Your task to perform on an android device: Search for "lg ultragear" on target.com, select the first entry, and add it to the cart. Image 0: 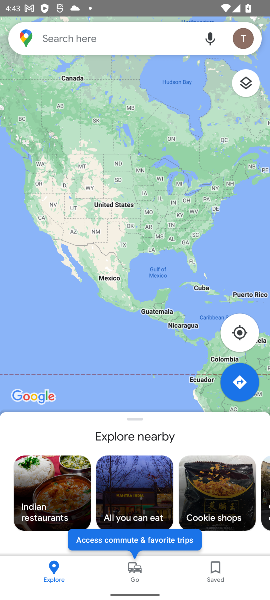
Step 0: press home button
Your task to perform on an android device: Search for "lg ultragear" on target.com, select the first entry, and add it to the cart. Image 1: 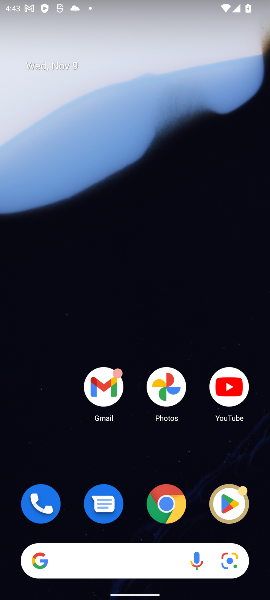
Step 1: click (121, 562)
Your task to perform on an android device: Search for "lg ultragear" on target.com, select the first entry, and add it to the cart. Image 2: 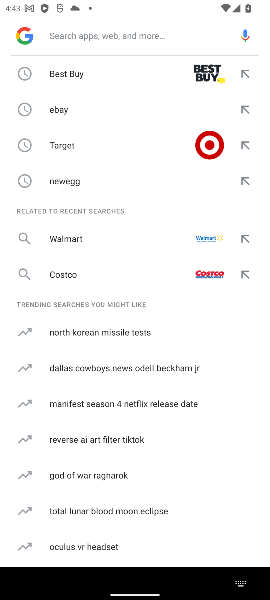
Step 2: type " target.com,"
Your task to perform on an android device: Search for "lg ultragear" on target.com, select the first entry, and add it to the cart. Image 3: 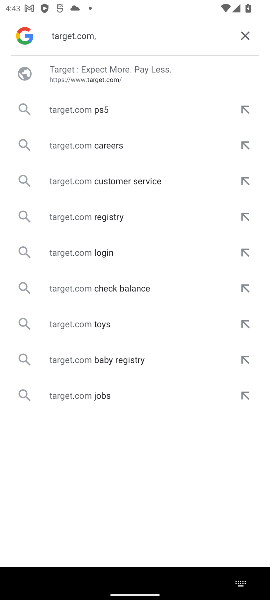
Step 3: click (102, 74)
Your task to perform on an android device: Search for "lg ultragear" on target.com, select the first entry, and add it to the cart. Image 4: 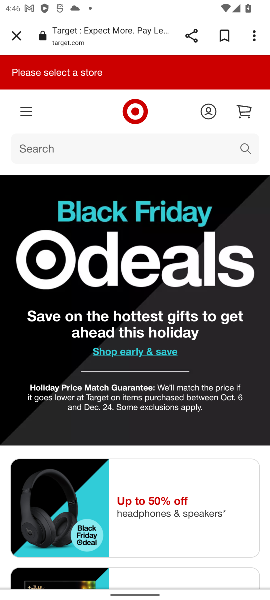
Step 4: click (163, 143)
Your task to perform on an android device: Search for "lg ultragear" on target.com, select the first entry, and add it to the cart. Image 5: 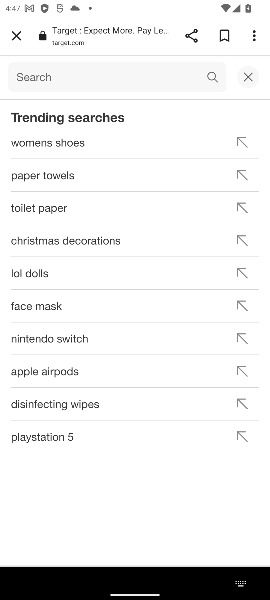
Step 5: type "lg ultragear"
Your task to perform on an android device: Search for "lg ultragear" on target.com, select the first entry, and add it to the cart. Image 6: 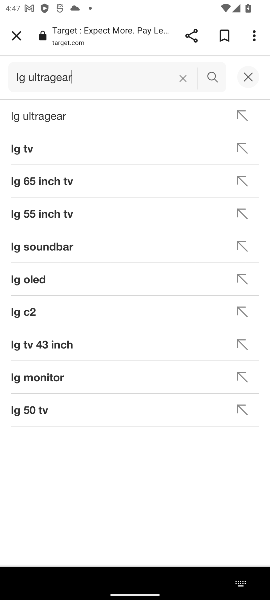
Step 6: click (48, 122)
Your task to perform on an android device: Search for "lg ultragear" on target.com, select the first entry, and add it to the cart. Image 7: 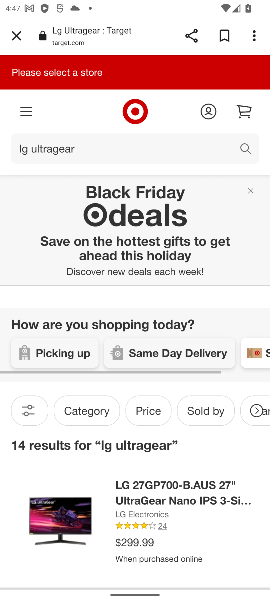
Step 7: click (146, 503)
Your task to perform on an android device: Search for "lg ultragear" on target.com, select the first entry, and add it to the cart. Image 8: 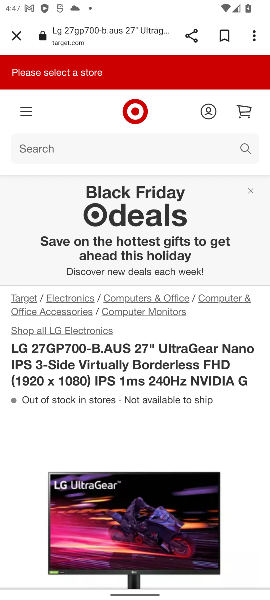
Step 8: drag from (194, 238) to (194, 188)
Your task to perform on an android device: Search for "lg ultragear" on target.com, select the first entry, and add it to the cart. Image 9: 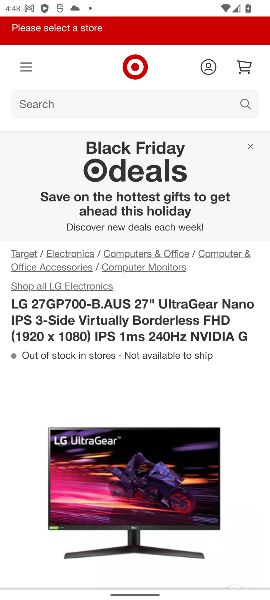
Step 9: drag from (125, 435) to (149, 269)
Your task to perform on an android device: Search for "lg ultragear" on target.com, select the first entry, and add it to the cart. Image 10: 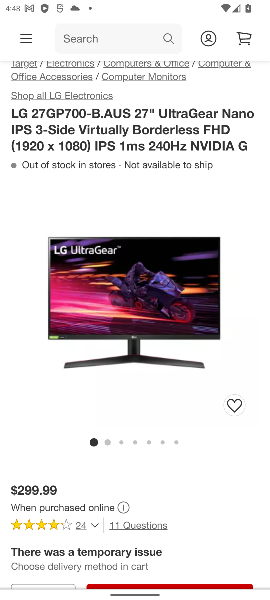
Step 10: drag from (127, 472) to (139, 240)
Your task to perform on an android device: Search for "lg ultragear" on target.com, select the first entry, and add it to the cart. Image 11: 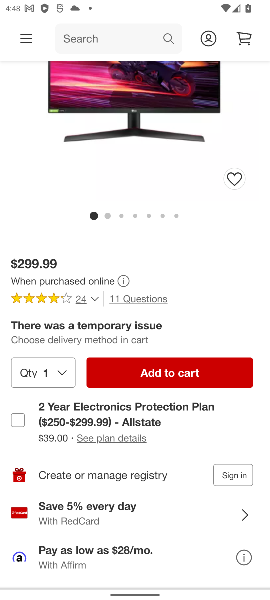
Step 11: click (162, 378)
Your task to perform on an android device: Search for "lg ultragear" on target.com, select the first entry, and add it to the cart. Image 12: 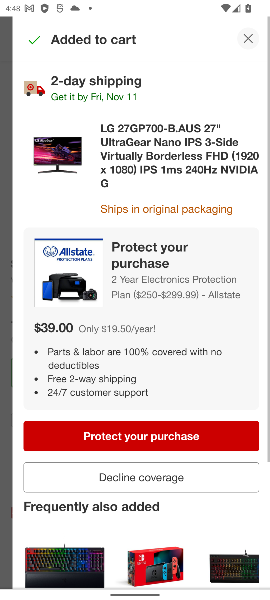
Step 12: click (247, 32)
Your task to perform on an android device: Search for "lg ultragear" on target.com, select the first entry, and add it to the cart. Image 13: 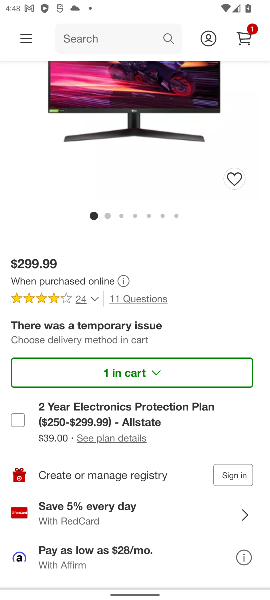
Step 13: click (245, 32)
Your task to perform on an android device: Search for "lg ultragear" on target.com, select the first entry, and add it to the cart. Image 14: 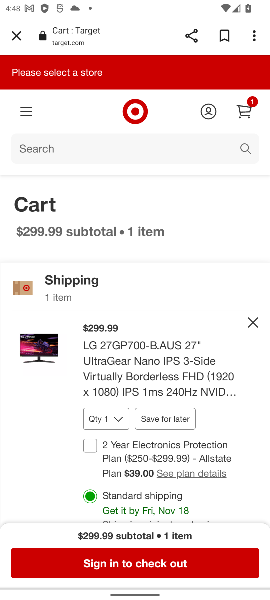
Step 14: click (116, 568)
Your task to perform on an android device: Search for "lg ultragear" on target.com, select the first entry, and add it to the cart. Image 15: 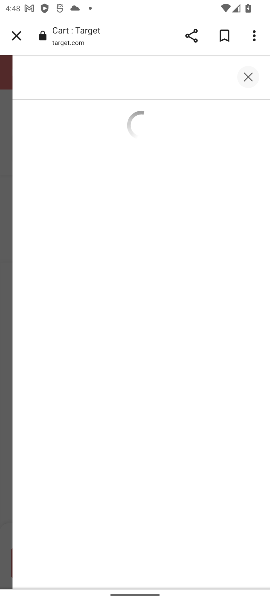
Step 15: task complete